Your task to perform on an android device: Go to Google Image 0: 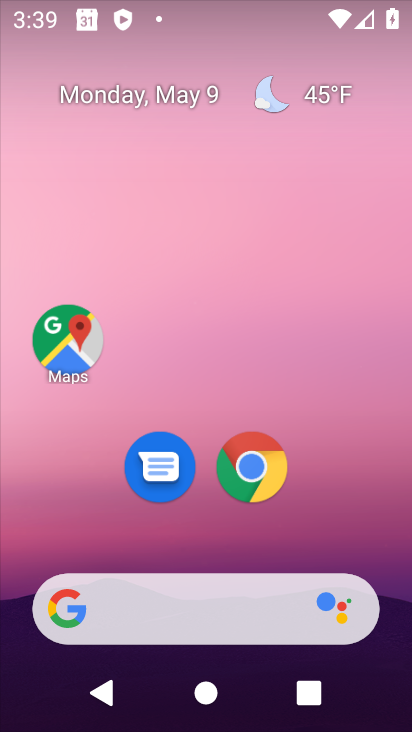
Step 0: drag from (323, 510) to (352, 14)
Your task to perform on an android device: Go to Google Image 1: 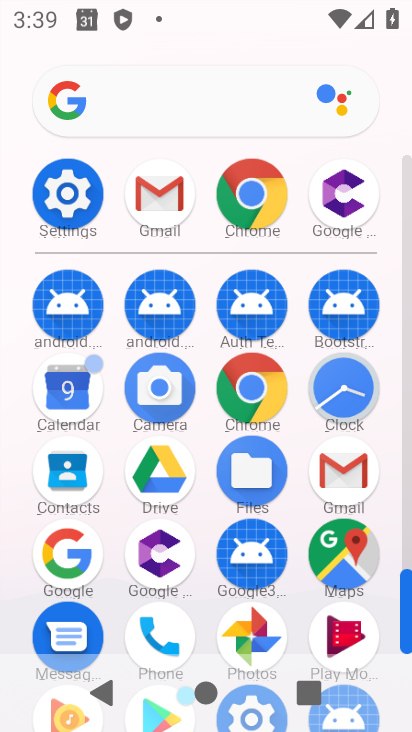
Step 1: click (83, 533)
Your task to perform on an android device: Go to Google Image 2: 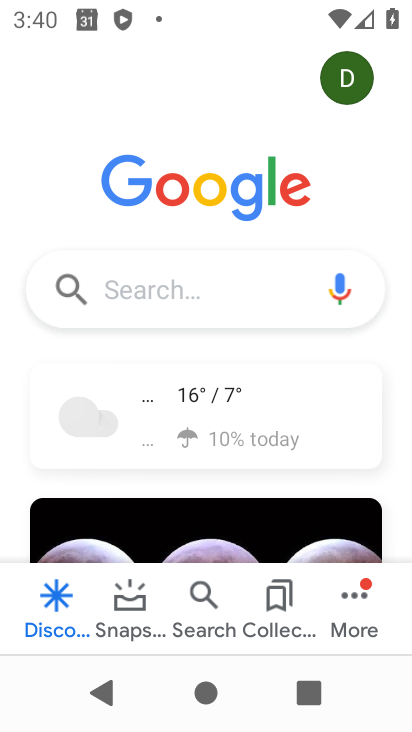
Step 2: task complete